Your task to perform on an android device: Open Reddit.com Image 0: 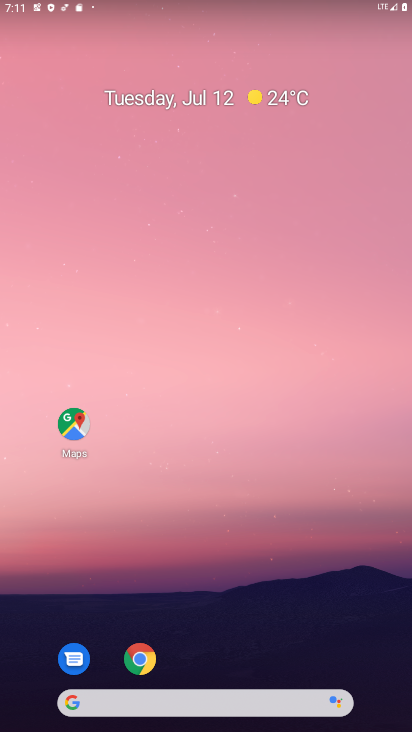
Step 0: drag from (333, 658) to (213, 0)
Your task to perform on an android device: Open Reddit.com Image 1: 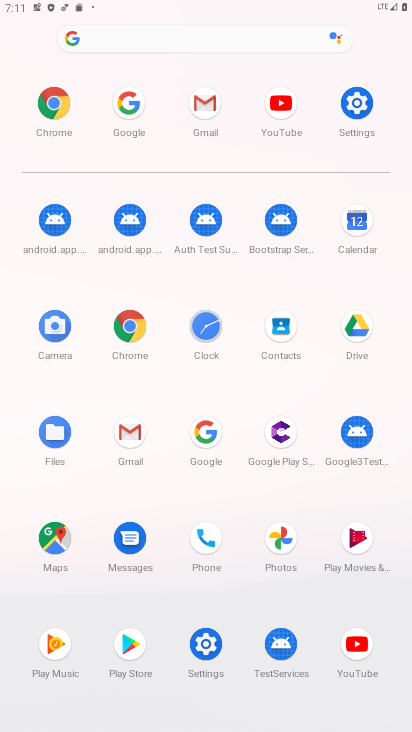
Step 1: click (200, 437)
Your task to perform on an android device: Open Reddit.com Image 2: 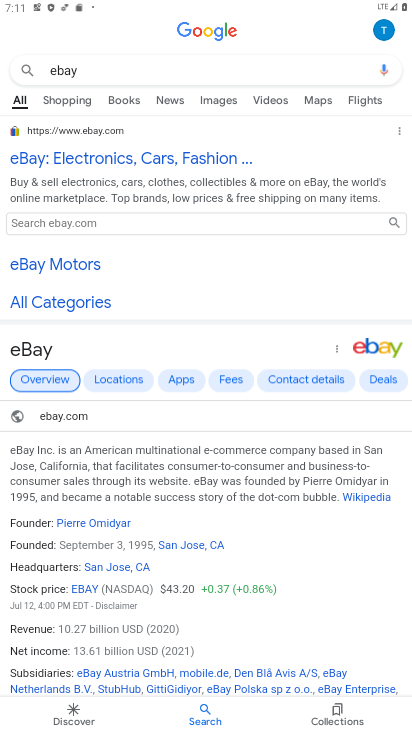
Step 2: click (313, 69)
Your task to perform on an android device: Open Reddit.com Image 3: 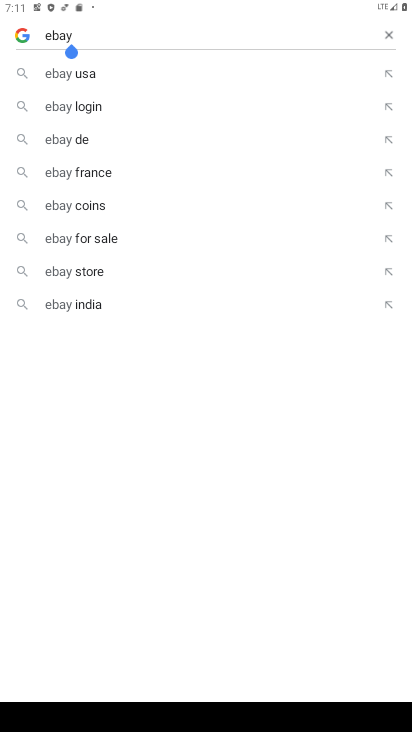
Step 3: click (394, 30)
Your task to perform on an android device: Open Reddit.com Image 4: 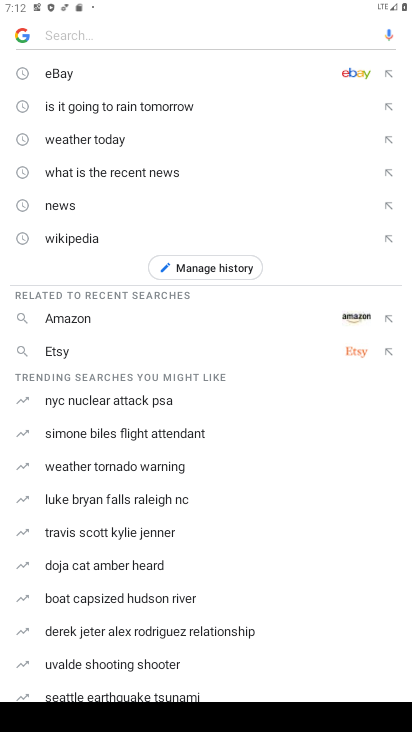
Step 4: type "Reddit.com"
Your task to perform on an android device: Open Reddit.com Image 5: 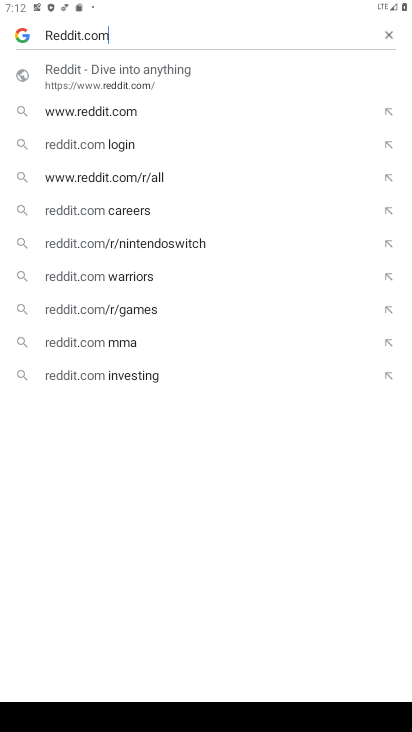
Step 5: click (155, 66)
Your task to perform on an android device: Open Reddit.com Image 6: 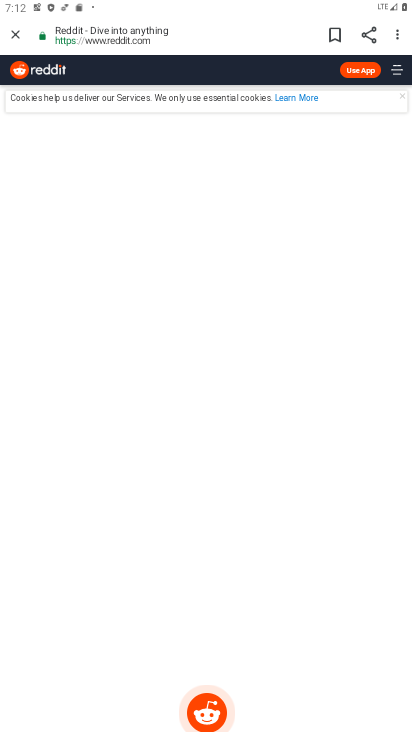
Step 6: task complete